Your task to perform on an android device: Open the map Image 0: 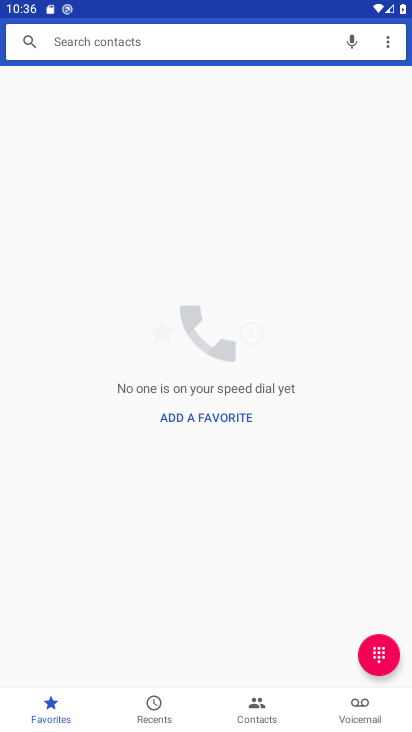
Step 0: press home button
Your task to perform on an android device: Open the map Image 1: 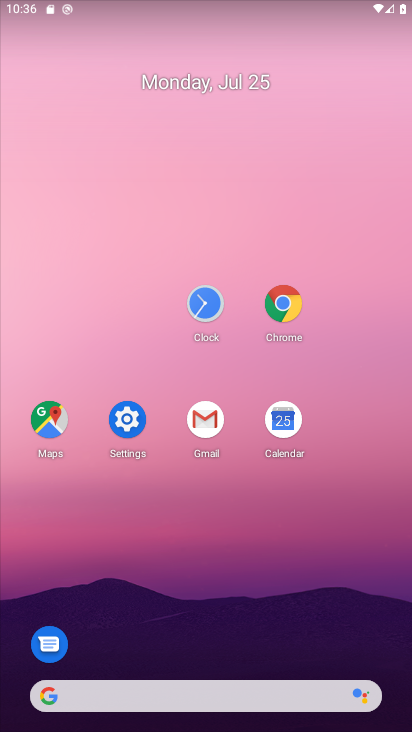
Step 1: click (63, 427)
Your task to perform on an android device: Open the map Image 2: 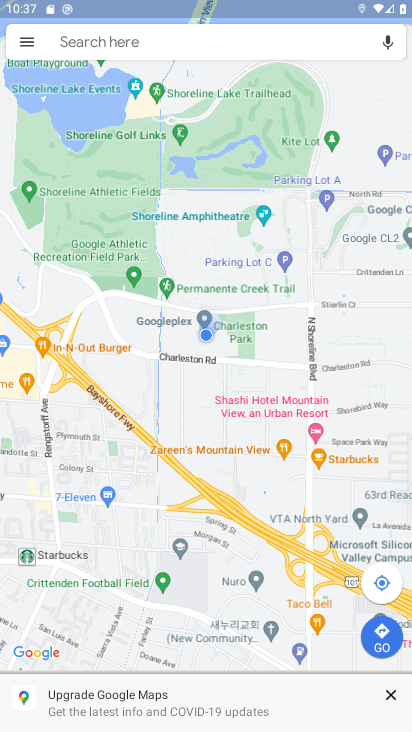
Step 2: task complete